Your task to perform on an android device: Open maps Image 0: 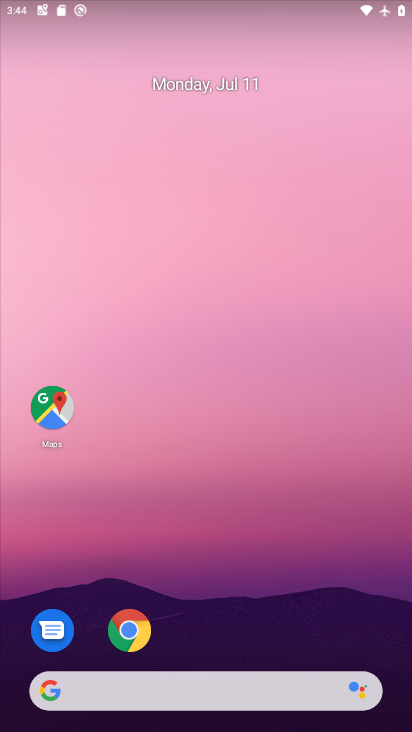
Step 0: click (64, 424)
Your task to perform on an android device: Open maps Image 1: 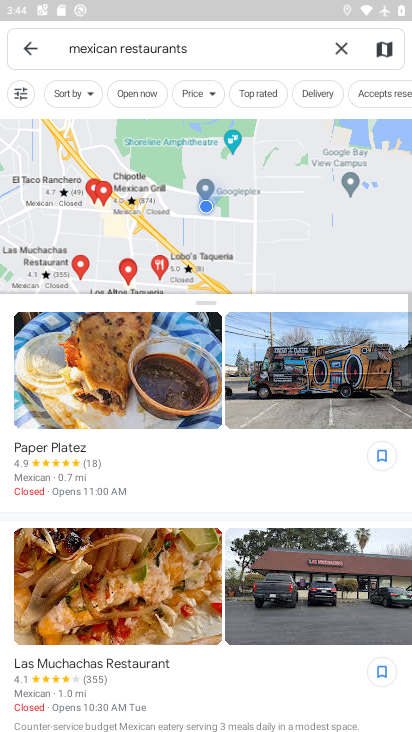
Step 1: task complete